Your task to perform on an android device: turn off data saver in the chrome app Image 0: 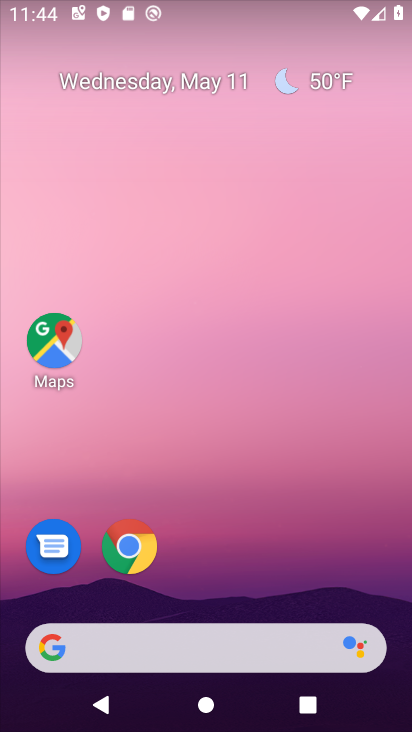
Step 0: click (123, 559)
Your task to perform on an android device: turn off data saver in the chrome app Image 1: 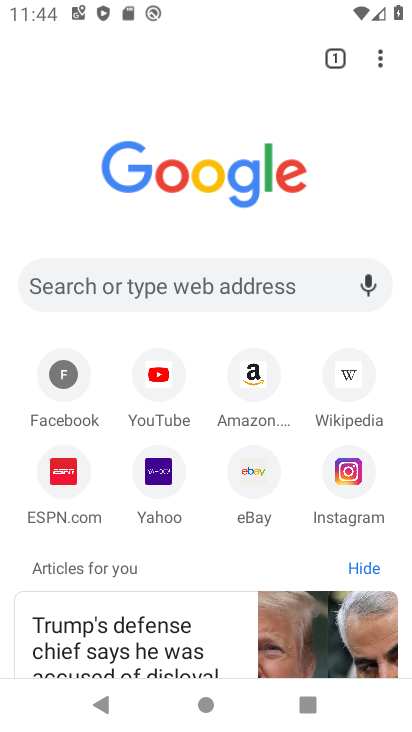
Step 1: click (381, 51)
Your task to perform on an android device: turn off data saver in the chrome app Image 2: 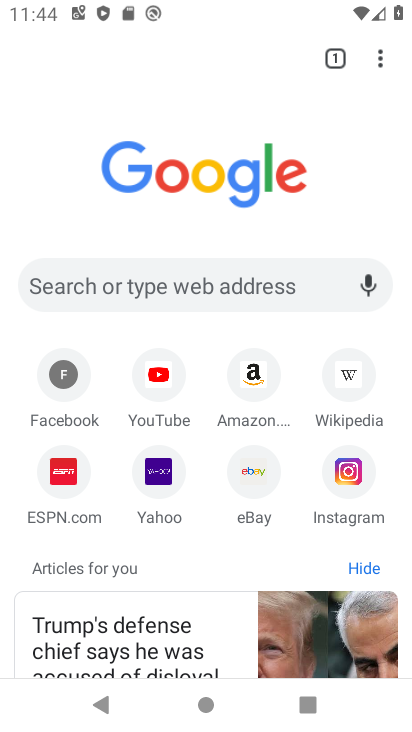
Step 2: click (381, 52)
Your task to perform on an android device: turn off data saver in the chrome app Image 3: 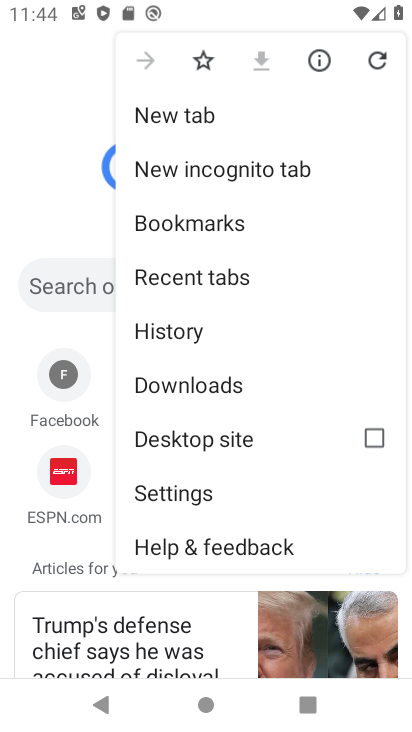
Step 3: click (183, 488)
Your task to perform on an android device: turn off data saver in the chrome app Image 4: 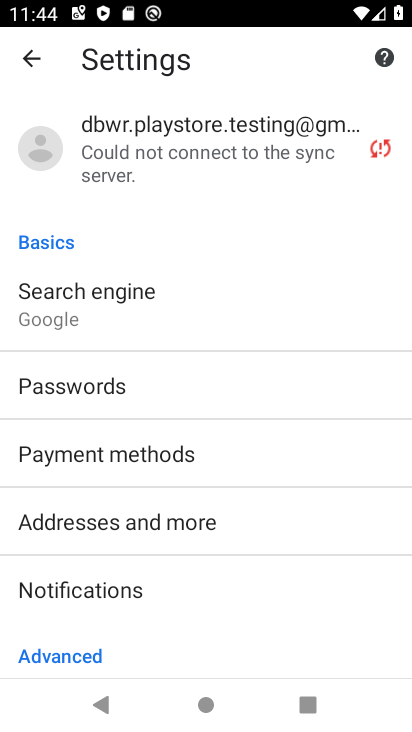
Step 4: drag from (172, 490) to (235, 228)
Your task to perform on an android device: turn off data saver in the chrome app Image 5: 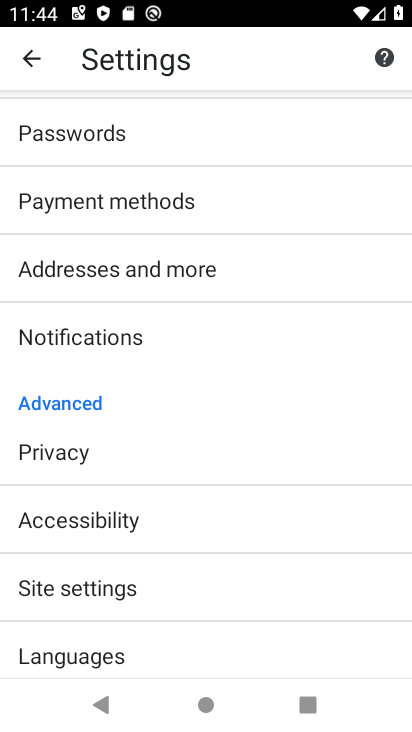
Step 5: drag from (146, 546) to (163, 238)
Your task to perform on an android device: turn off data saver in the chrome app Image 6: 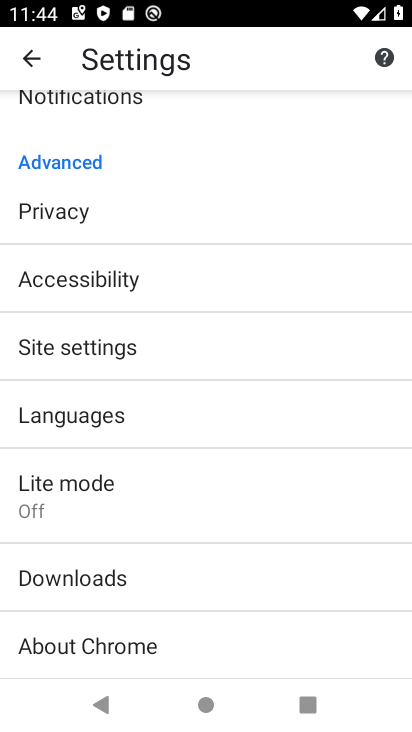
Step 6: click (68, 484)
Your task to perform on an android device: turn off data saver in the chrome app Image 7: 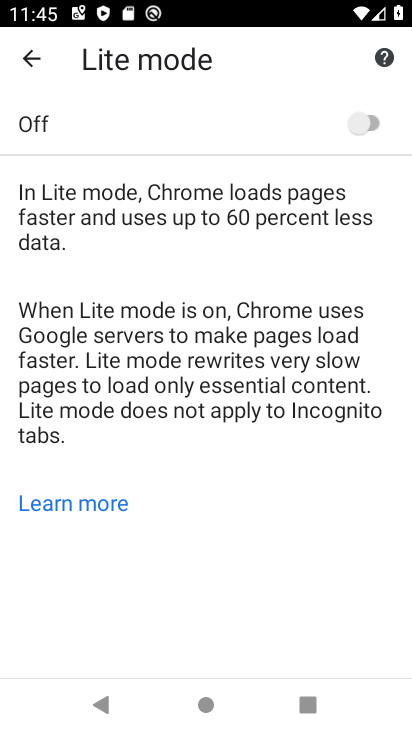
Step 7: task complete